Your task to perform on an android device: Go to Google Image 0: 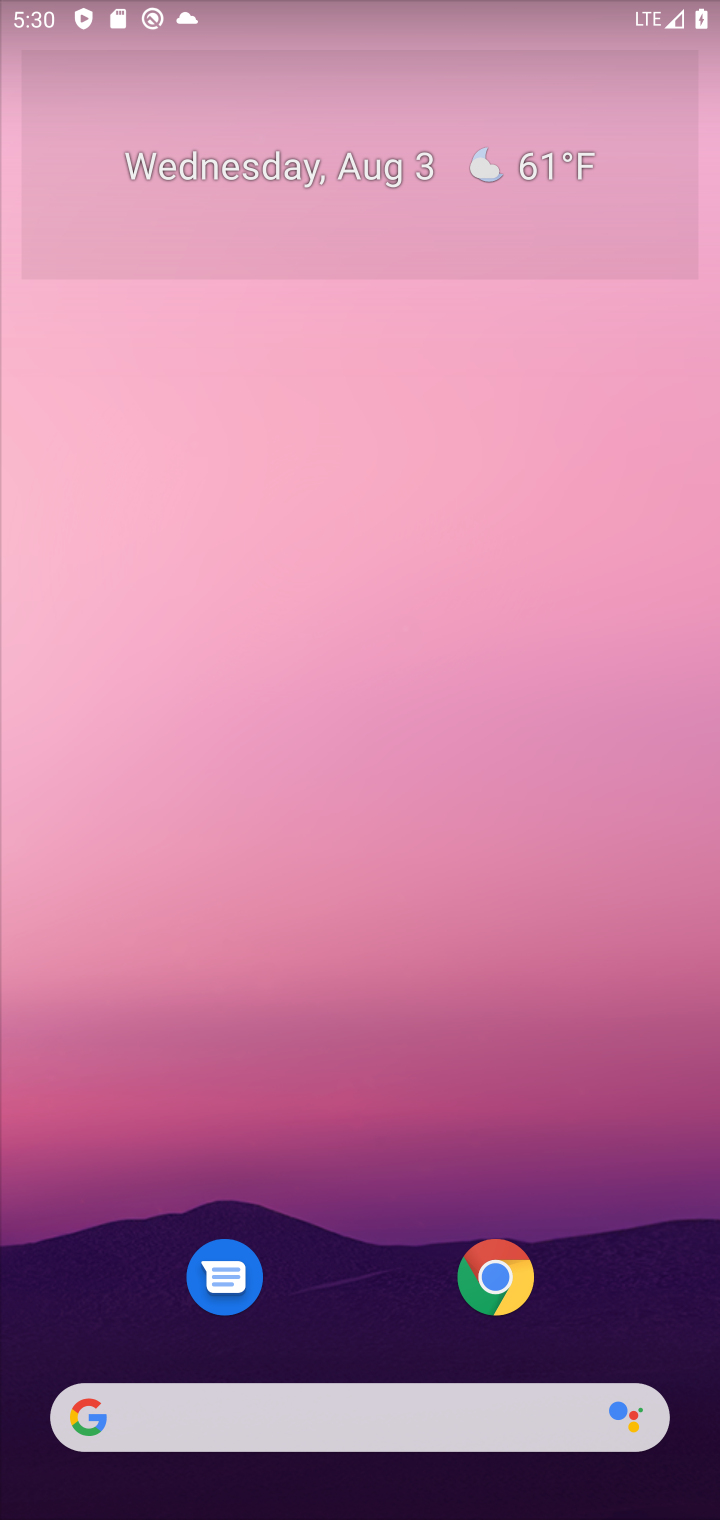
Step 0: drag from (564, 964) to (79, 1)
Your task to perform on an android device: Go to Google Image 1: 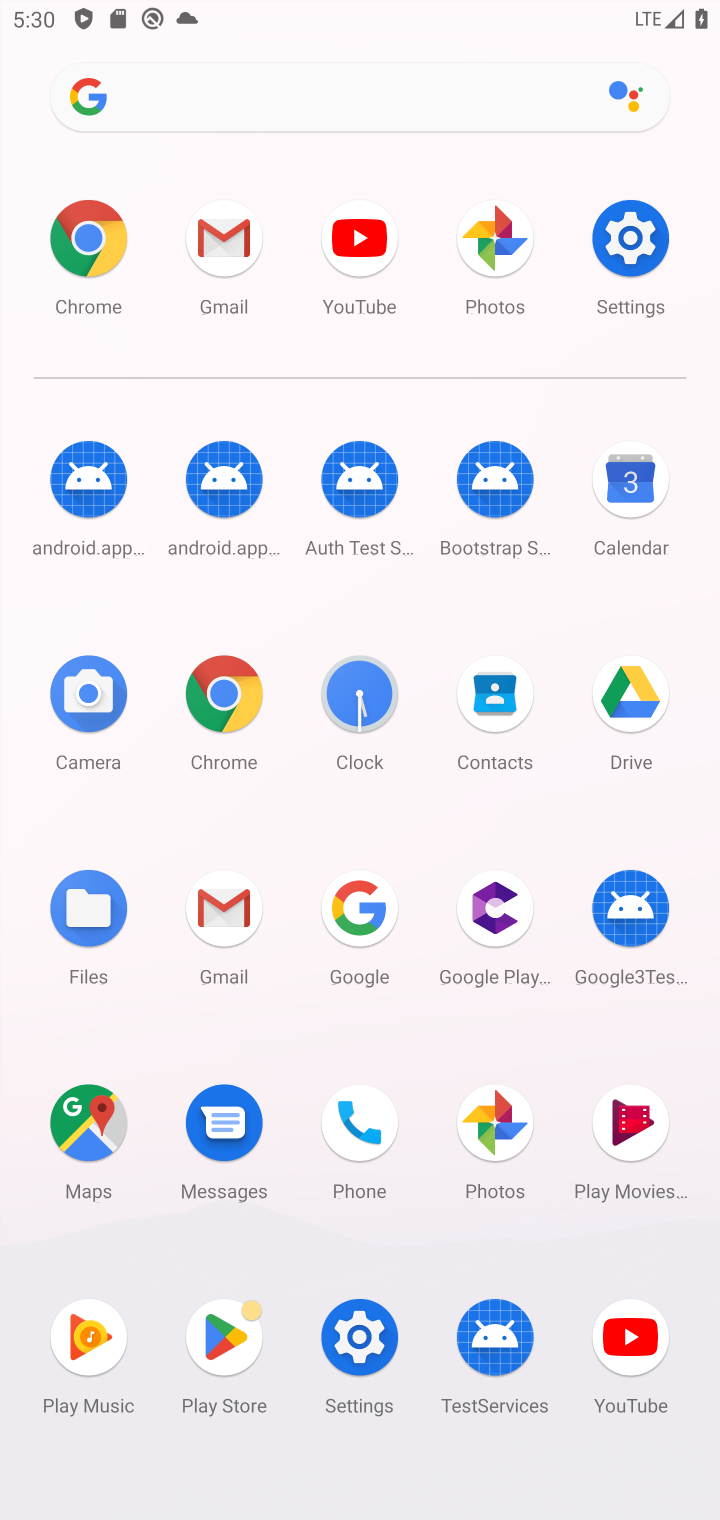
Step 1: click (352, 926)
Your task to perform on an android device: Go to Google Image 2: 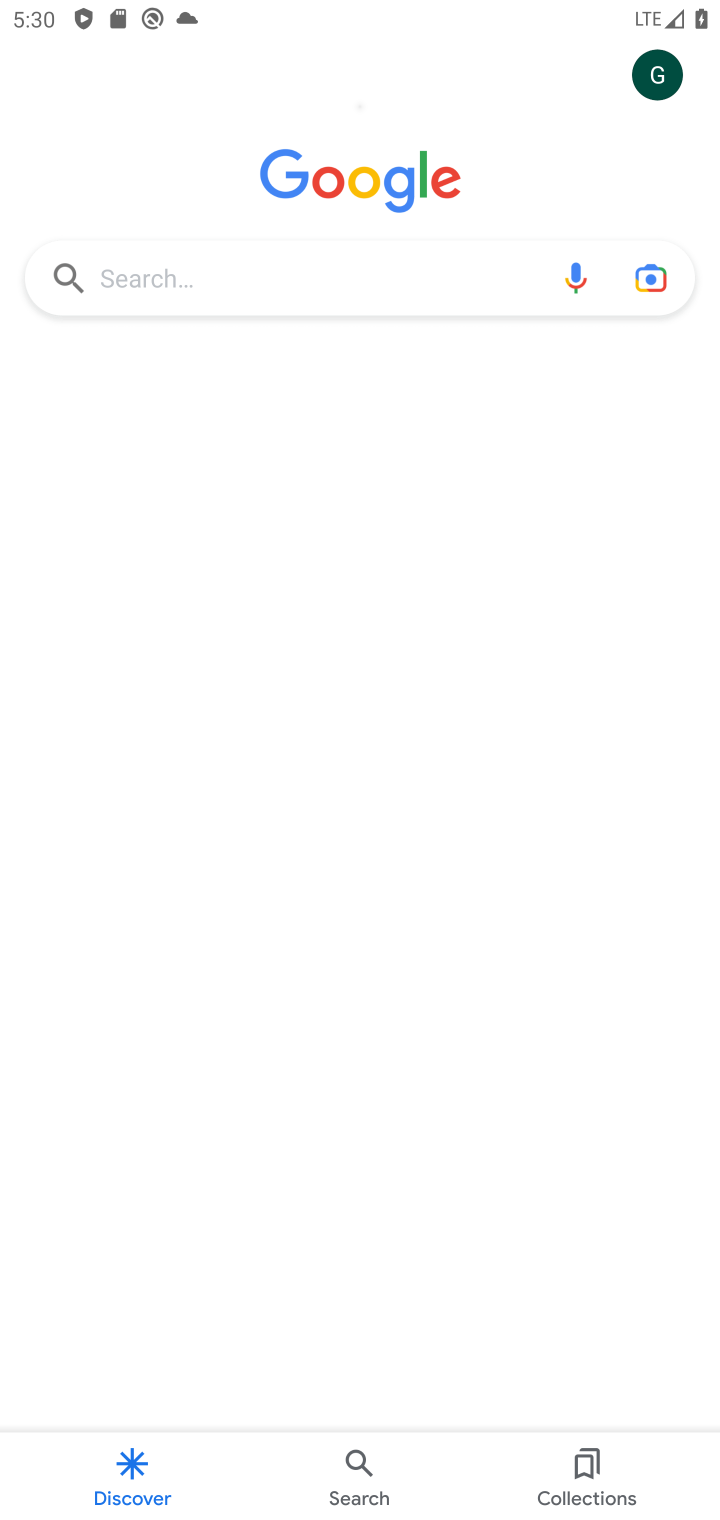
Step 2: task complete